Your task to perform on an android device: Search for vegetarian restaurants on Maps Image 0: 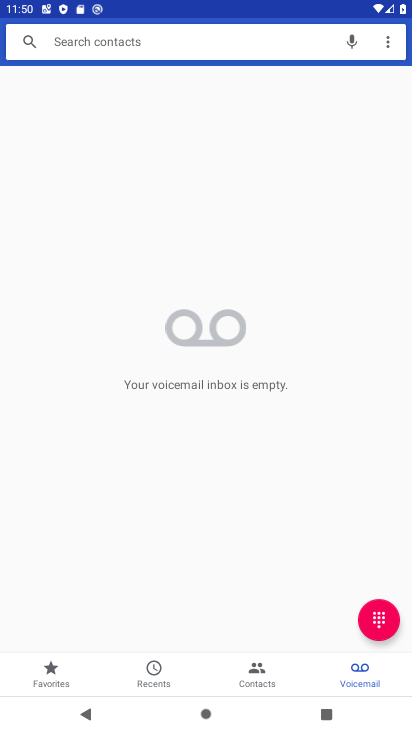
Step 0: press home button
Your task to perform on an android device: Search for vegetarian restaurants on Maps Image 1: 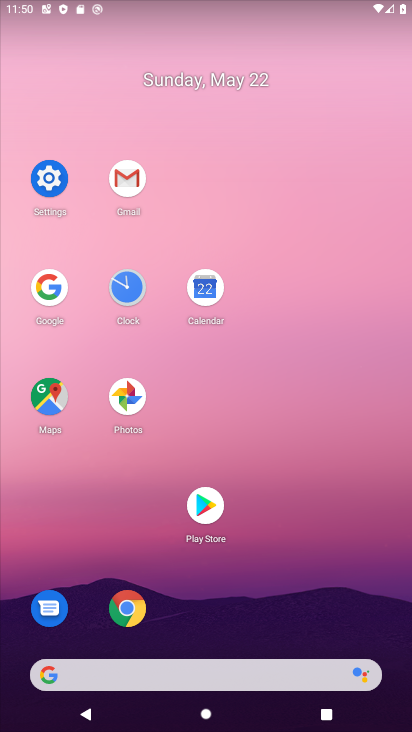
Step 1: click (66, 401)
Your task to perform on an android device: Search for vegetarian restaurants on Maps Image 2: 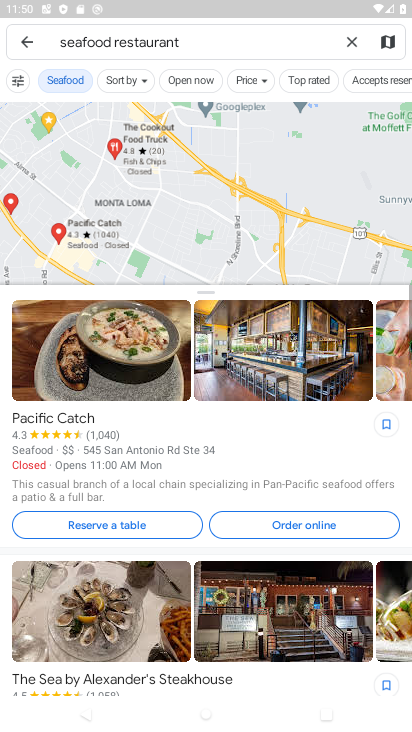
Step 2: click (352, 35)
Your task to perform on an android device: Search for vegetarian restaurants on Maps Image 3: 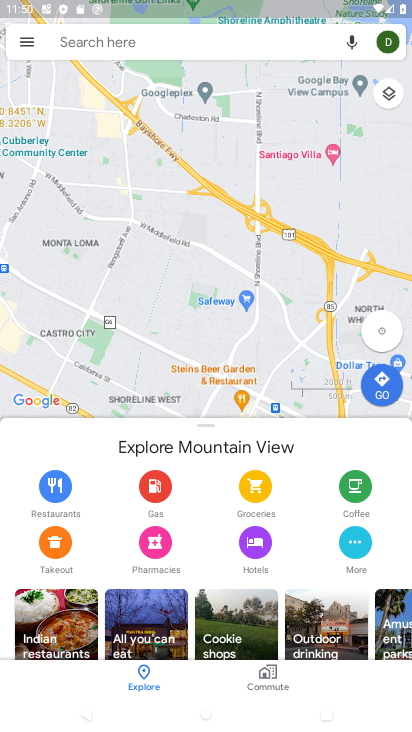
Step 3: click (246, 34)
Your task to perform on an android device: Search for vegetarian restaurants on Maps Image 4: 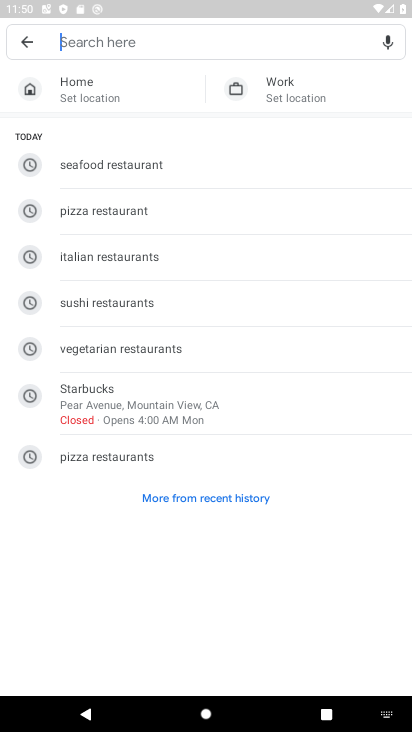
Step 4: click (300, 355)
Your task to perform on an android device: Search for vegetarian restaurants on Maps Image 5: 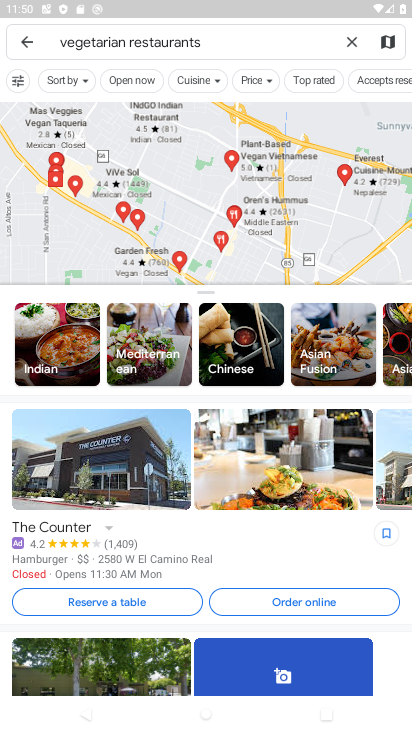
Step 5: task complete